Your task to perform on an android device: Show me popular games on the Play Store Image 0: 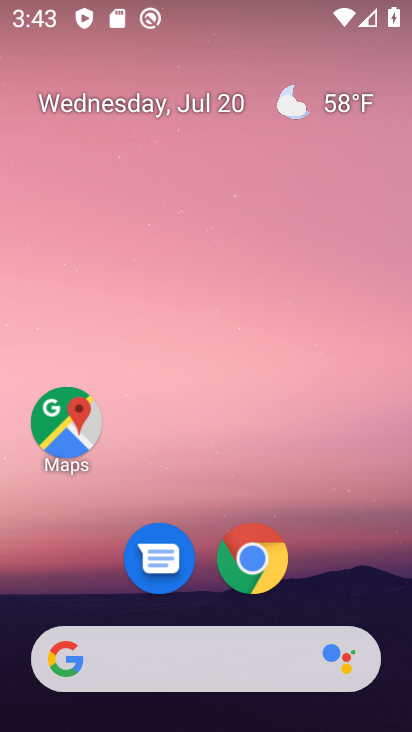
Step 0: drag from (113, 586) to (166, 71)
Your task to perform on an android device: Show me popular games on the Play Store Image 1: 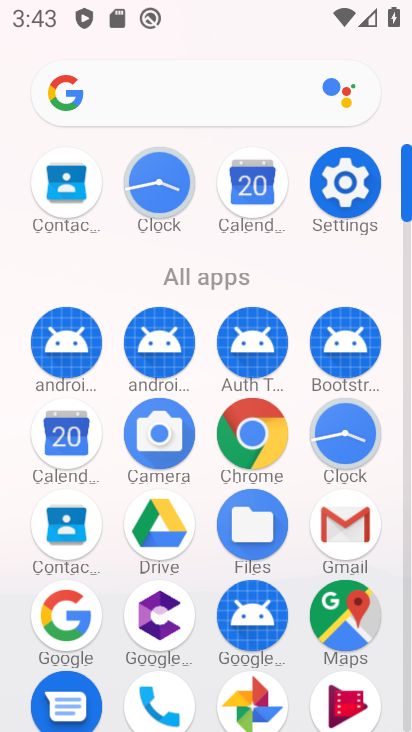
Step 1: drag from (206, 638) to (268, 100)
Your task to perform on an android device: Show me popular games on the Play Store Image 2: 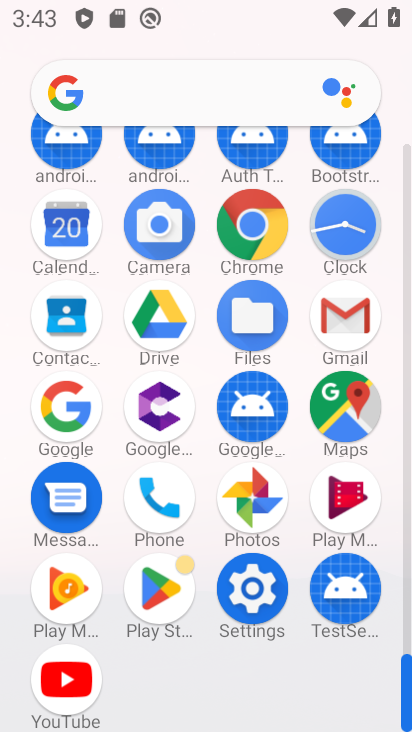
Step 2: click (144, 600)
Your task to perform on an android device: Show me popular games on the Play Store Image 3: 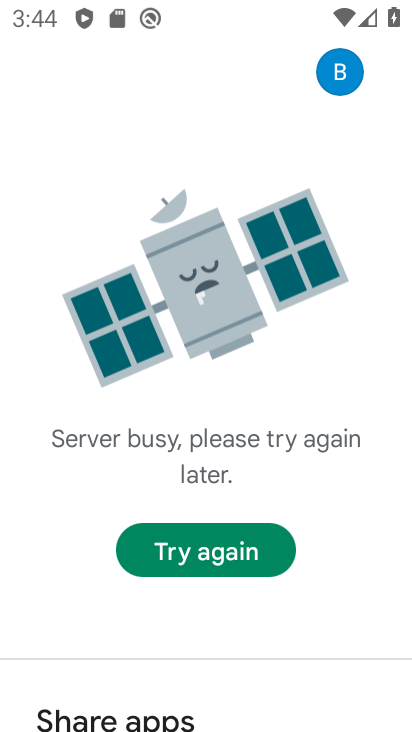
Step 3: click (243, 551)
Your task to perform on an android device: Show me popular games on the Play Store Image 4: 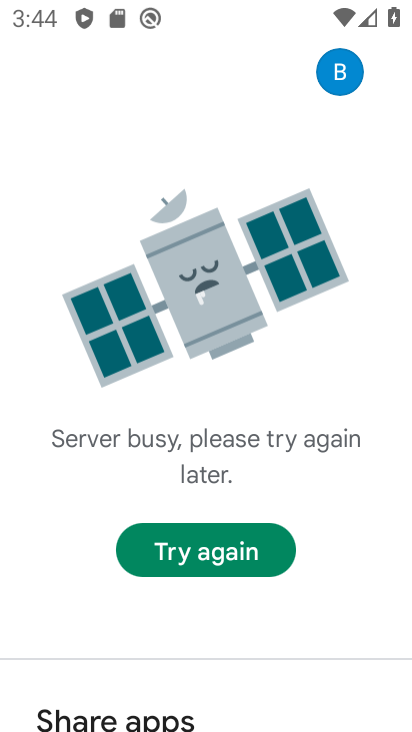
Step 4: task complete